Your task to perform on an android device: Check the news Image 0: 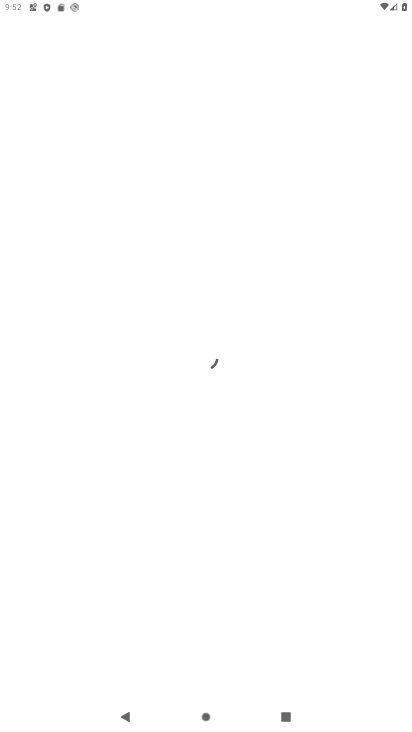
Step 0: drag from (224, 646) to (264, 212)
Your task to perform on an android device: Check the news Image 1: 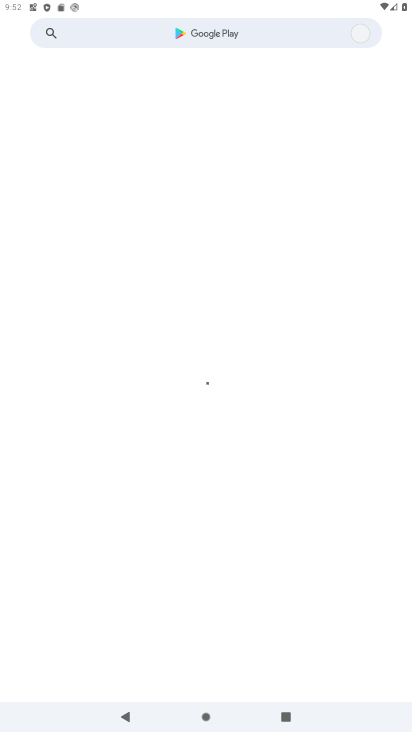
Step 1: task complete